Your task to perform on an android device: toggle airplane mode Image 0: 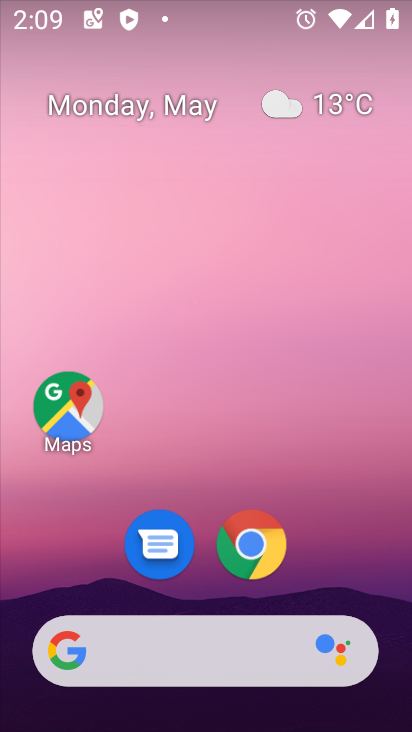
Step 0: drag from (393, 598) to (316, 87)
Your task to perform on an android device: toggle airplane mode Image 1: 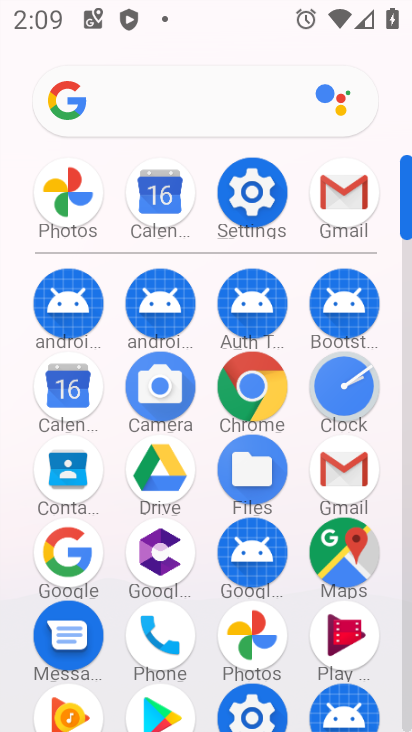
Step 1: click (408, 704)
Your task to perform on an android device: toggle airplane mode Image 2: 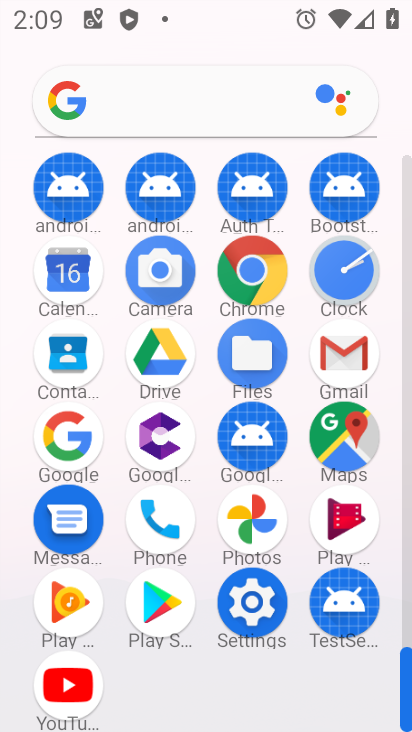
Step 2: click (247, 607)
Your task to perform on an android device: toggle airplane mode Image 3: 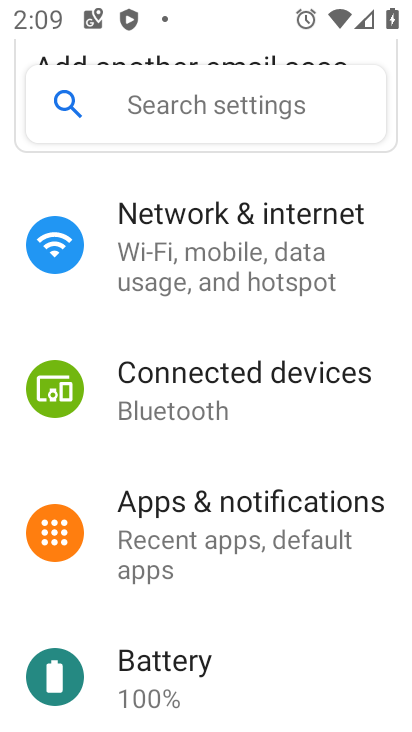
Step 3: click (203, 250)
Your task to perform on an android device: toggle airplane mode Image 4: 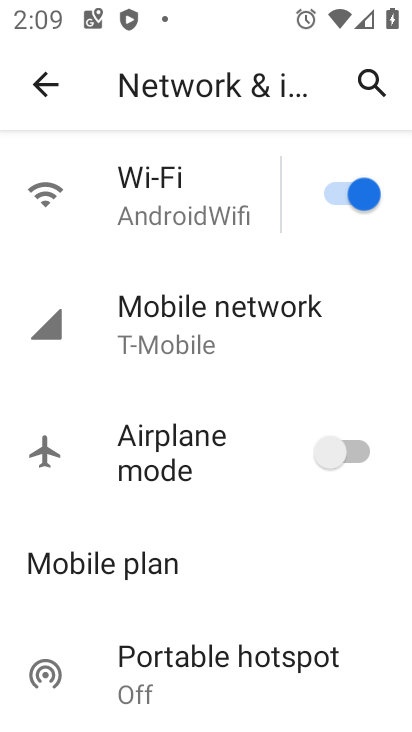
Step 4: click (359, 442)
Your task to perform on an android device: toggle airplane mode Image 5: 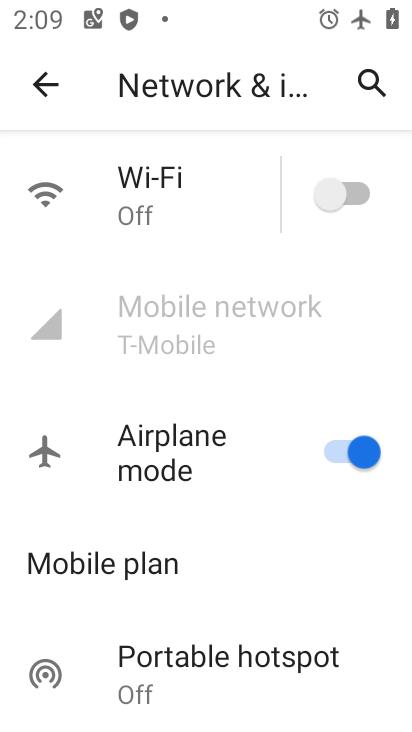
Step 5: task complete